Your task to perform on an android device: Open maps Image 0: 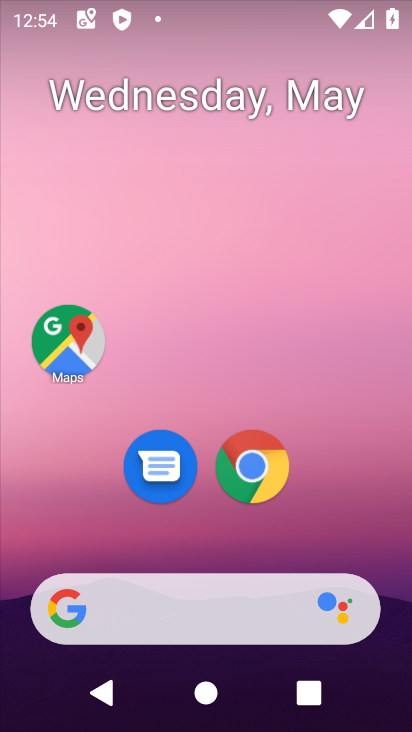
Step 0: drag from (218, 534) to (268, 98)
Your task to perform on an android device: Open maps Image 1: 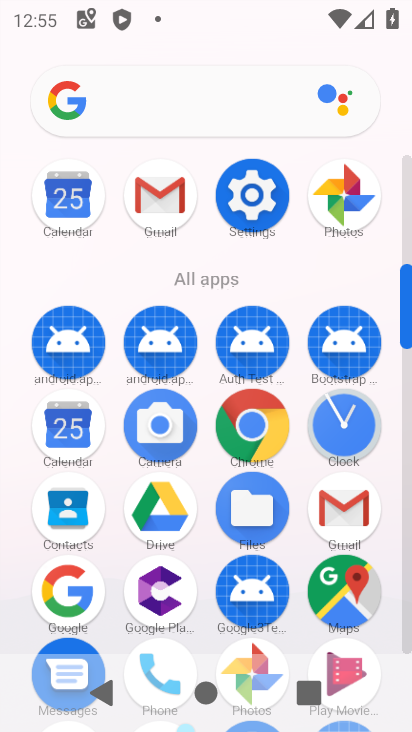
Step 1: drag from (110, 480) to (127, 272)
Your task to perform on an android device: Open maps Image 2: 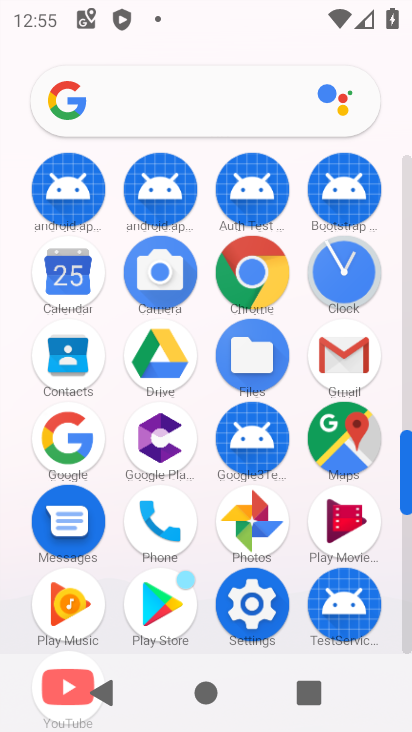
Step 2: drag from (201, 302) to (200, 621)
Your task to perform on an android device: Open maps Image 3: 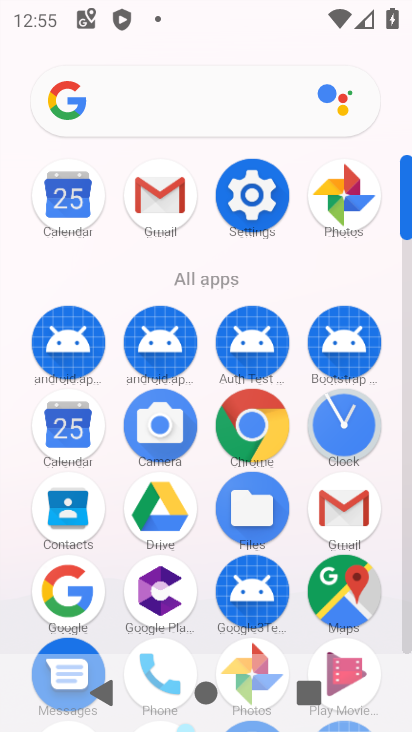
Step 3: click (356, 588)
Your task to perform on an android device: Open maps Image 4: 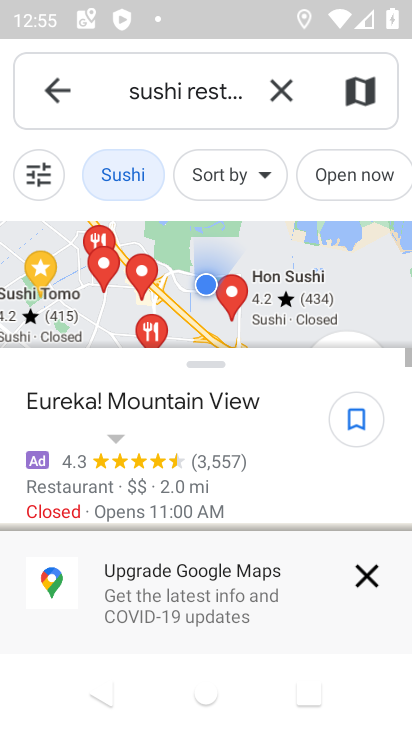
Step 4: task complete